Your task to perform on an android device: What's the weather today? Image 0: 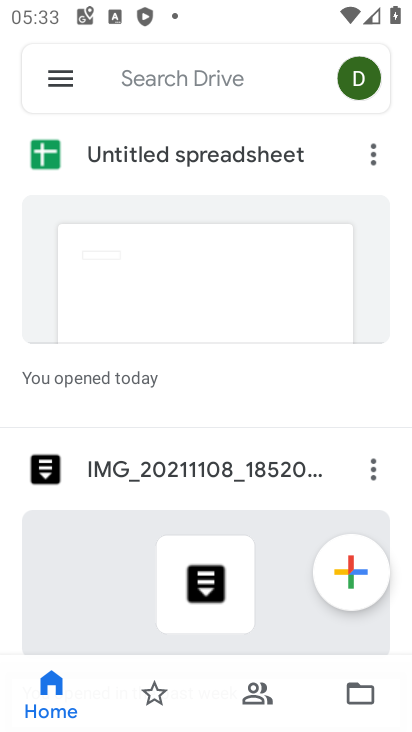
Step 0: press home button
Your task to perform on an android device: What's the weather today? Image 1: 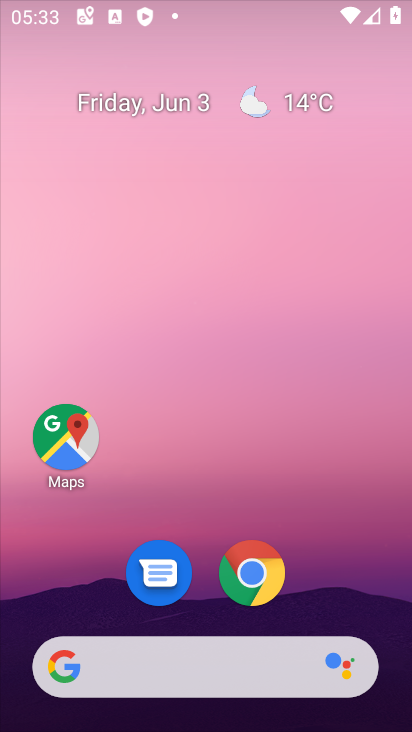
Step 1: drag from (16, 373) to (396, 308)
Your task to perform on an android device: What's the weather today? Image 2: 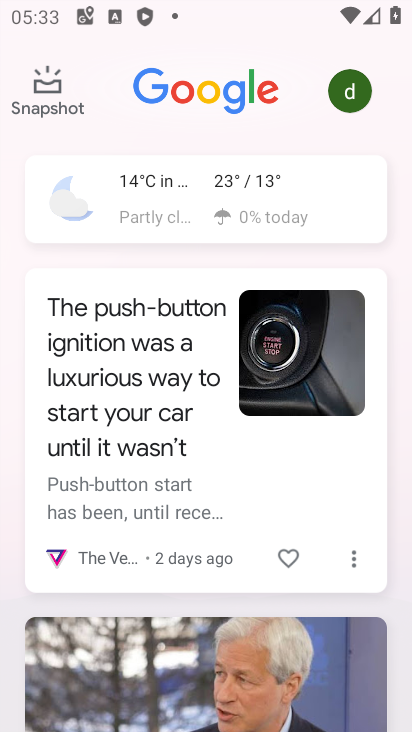
Step 2: click (215, 217)
Your task to perform on an android device: What's the weather today? Image 3: 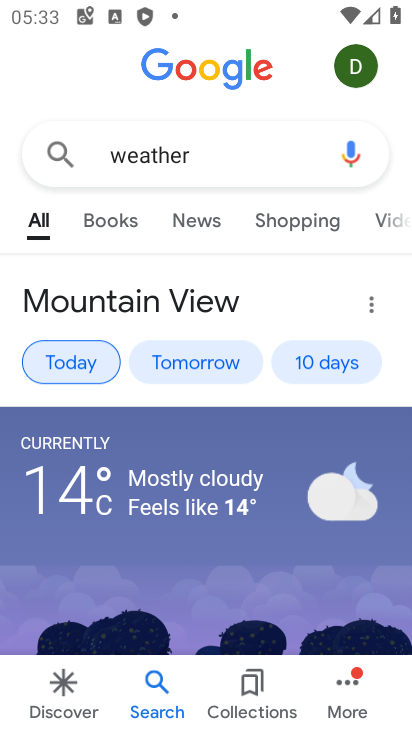
Step 3: task complete